Your task to perform on an android device: Open calendar and show me the third week of next month Image 0: 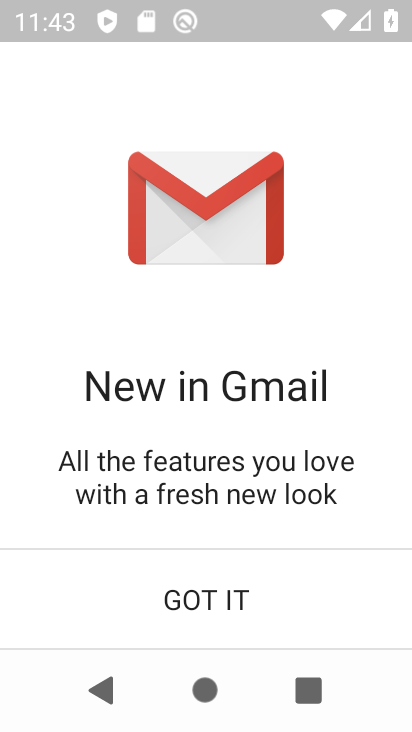
Step 0: click (186, 586)
Your task to perform on an android device: Open calendar and show me the third week of next month Image 1: 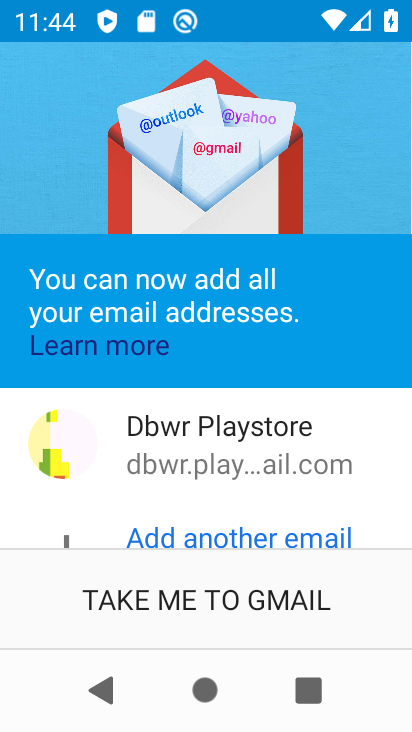
Step 1: click (185, 588)
Your task to perform on an android device: Open calendar and show me the third week of next month Image 2: 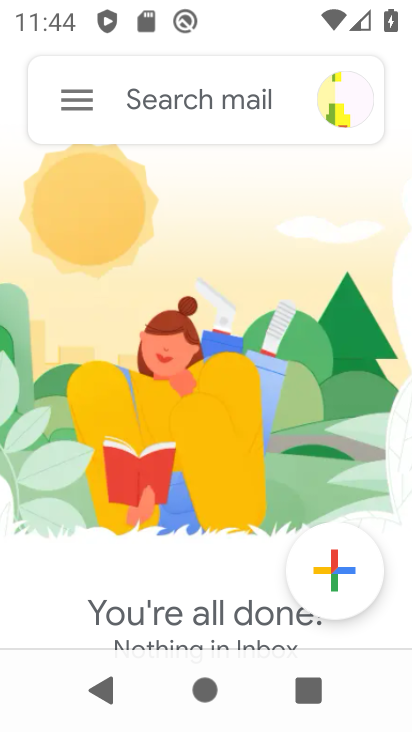
Step 2: click (70, 99)
Your task to perform on an android device: Open calendar and show me the third week of next month Image 3: 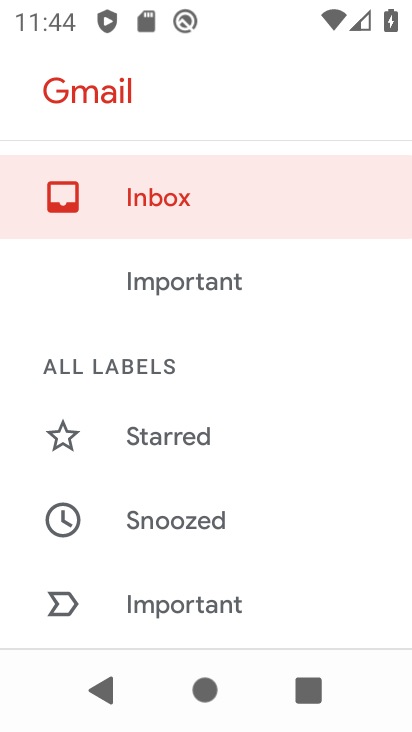
Step 3: press home button
Your task to perform on an android device: Open calendar and show me the third week of next month Image 4: 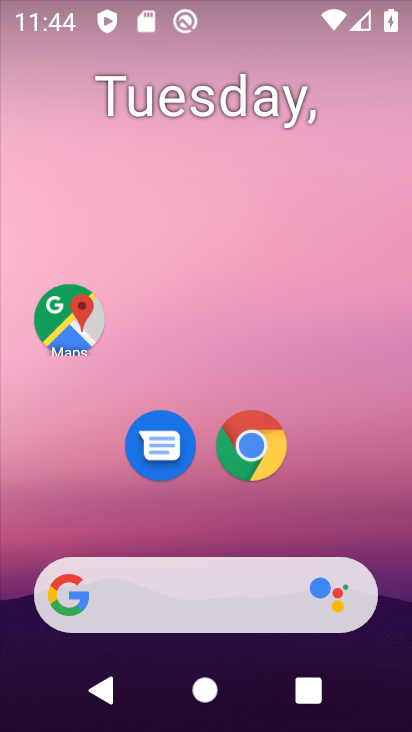
Step 4: drag from (308, 525) to (273, 54)
Your task to perform on an android device: Open calendar and show me the third week of next month Image 5: 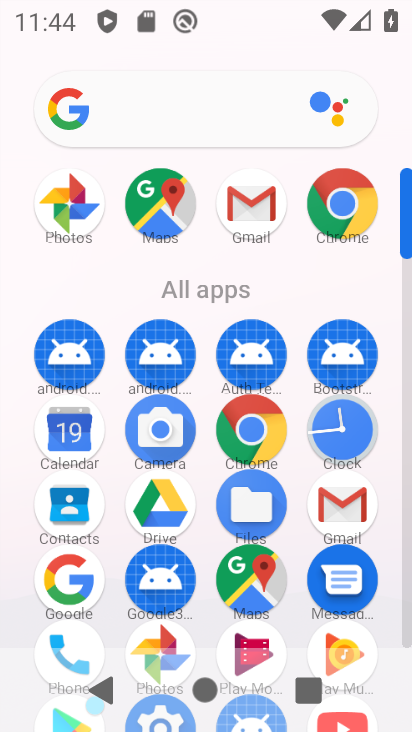
Step 5: click (76, 444)
Your task to perform on an android device: Open calendar and show me the third week of next month Image 6: 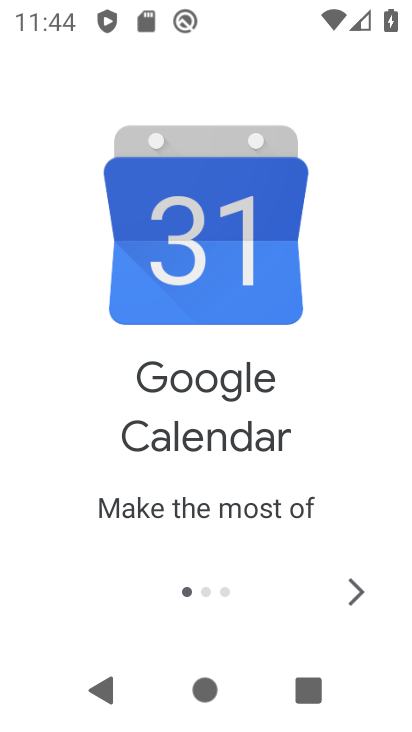
Step 6: click (346, 598)
Your task to perform on an android device: Open calendar and show me the third week of next month Image 7: 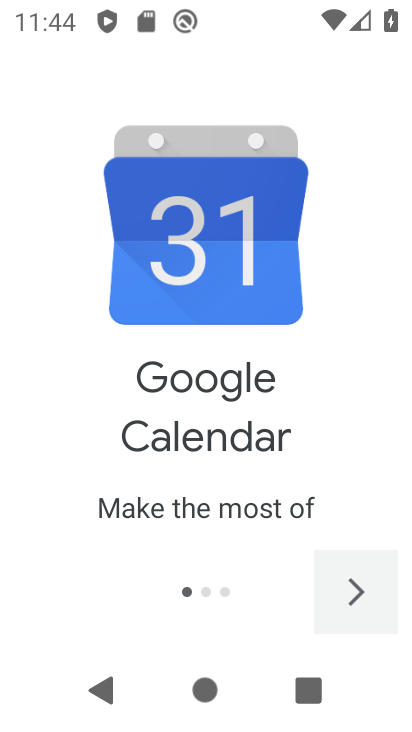
Step 7: click (346, 597)
Your task to perform on an android device: Open calendar and show me the third week of next month Image 8: 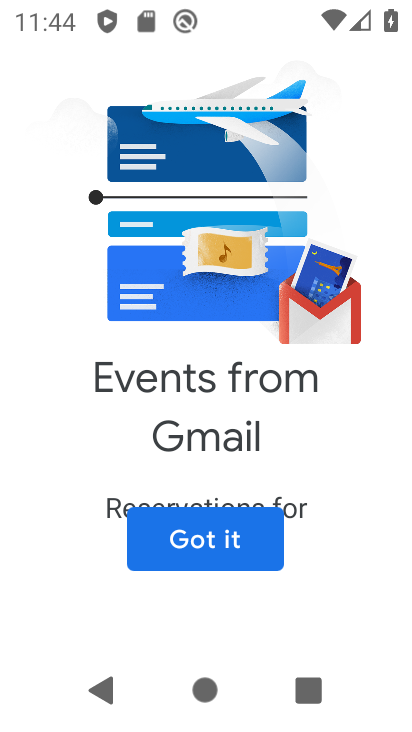
Step 8: click (249, 551)
Your task to perform on an android device: Open calendar and show me the third week of next month Image 9: 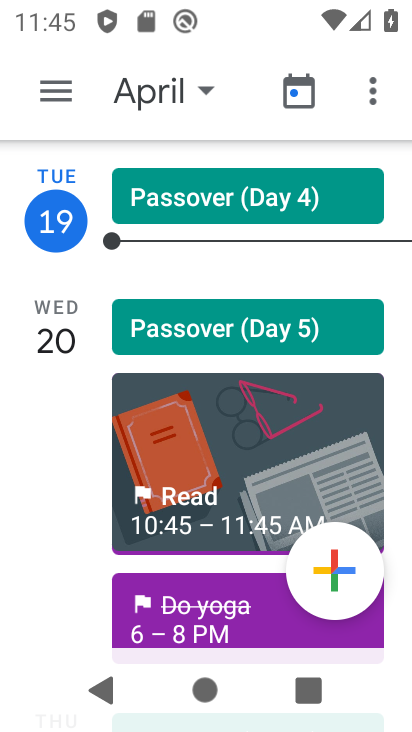
Step 9: click (194, 101)
Your task to perform on an android device: Open calendar and show me the third week of next month Image 10: 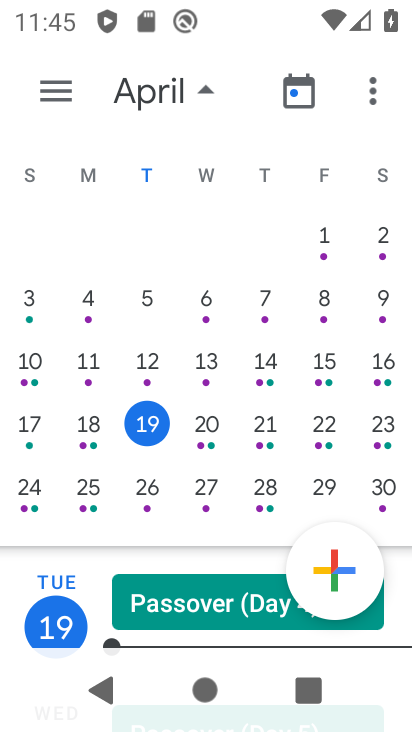
Step 10: drag from (369, 294) to (9, 307)
Your task to perform on an android device: Open calendar and show me the third week of next month Image 11: 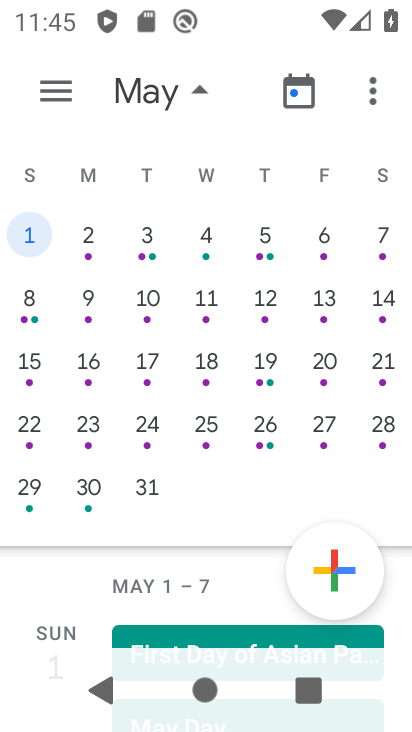
Step 11: click (96, 361)
Your task to perform on an android device: Open calendar and show me the third week of next month Image 12: 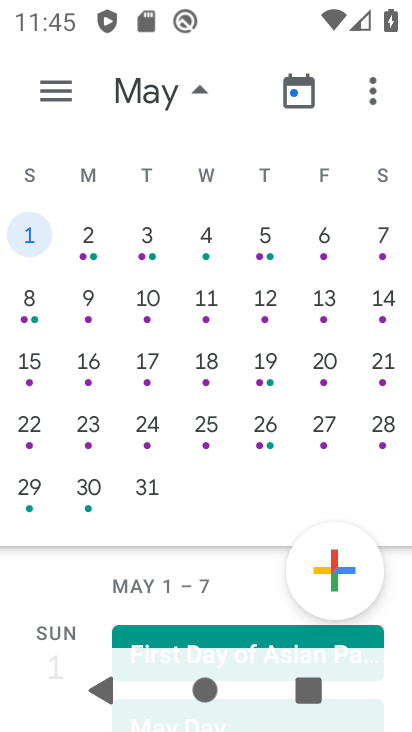
Step 12: click (149, 366)
Your task to perform on an android device: Open calendar and show me the third week of next month Image 13: 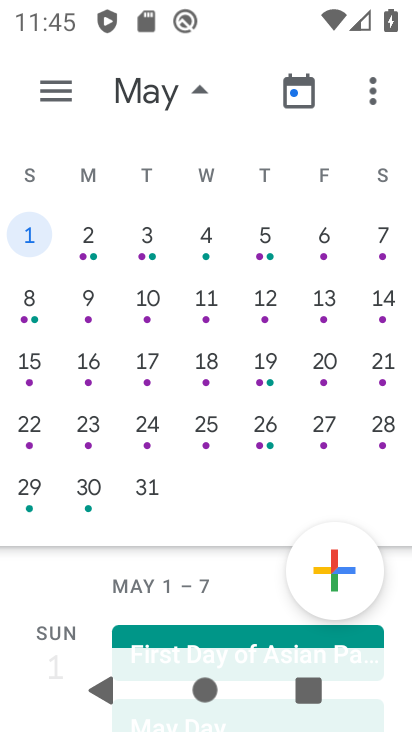
Step 13: click (129, 371)
Your task to perform on an android device: Open calendar and show me the third week of next month Image 14: 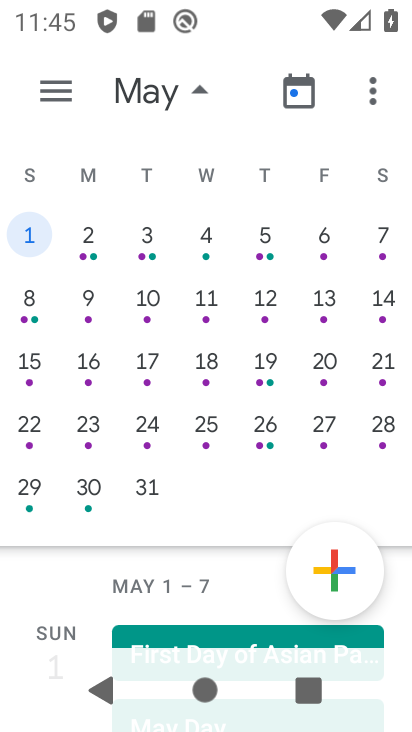
Step 14: click (137, 363)
Your task to perform on an android device: Open calendar and show me the third week of next month Image 15: 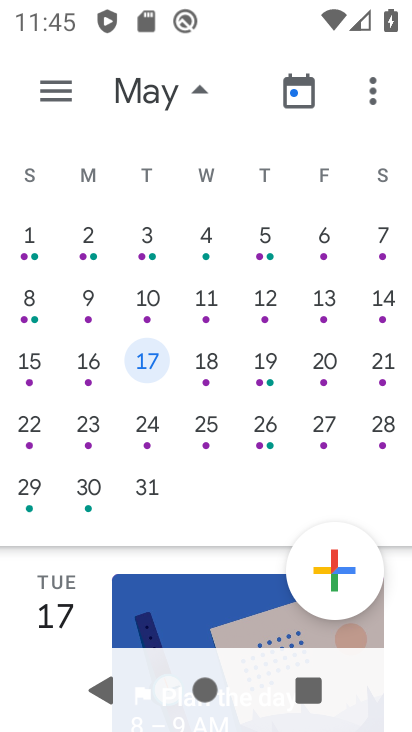
Step 15: task complete